Your task to perform on an android device: set the stopwatch Image 0: 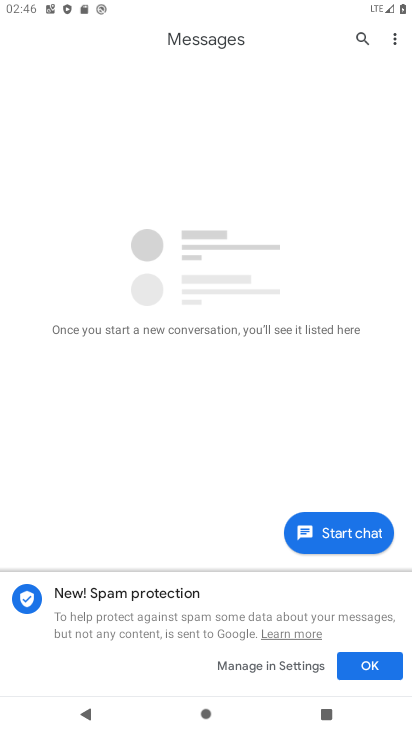
Step 0: press home button
Your task to perform on an android device: set the stopwatch Image 1: 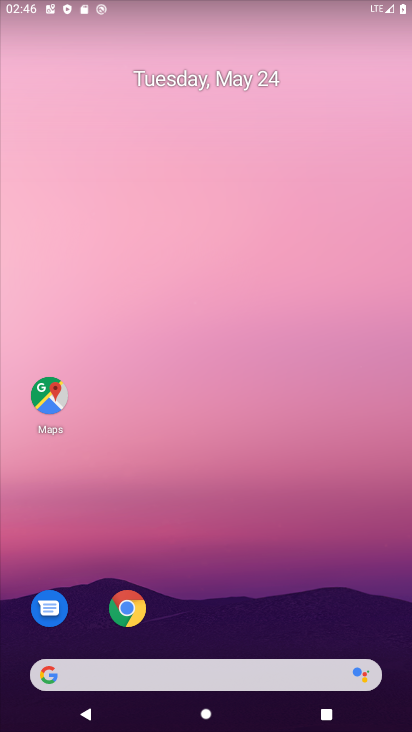
Step 1: drag from (270, 630) to (192, 240)
Your task to perform on an android device: set the stopwatch Image 2: 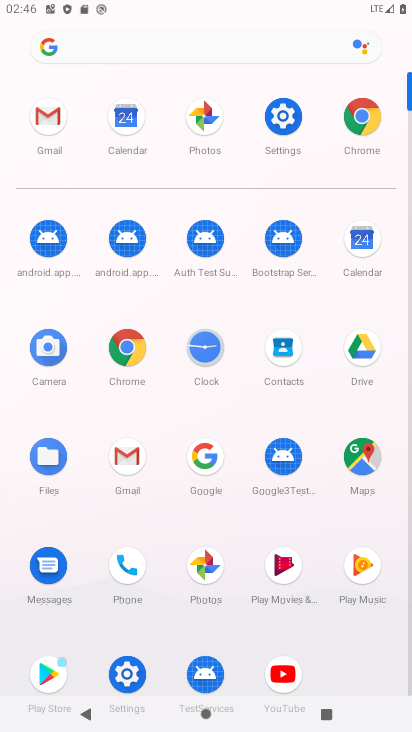
Step 2: click (207, 355)
Your task to perform on an android device: set the stopwatch Image 3: 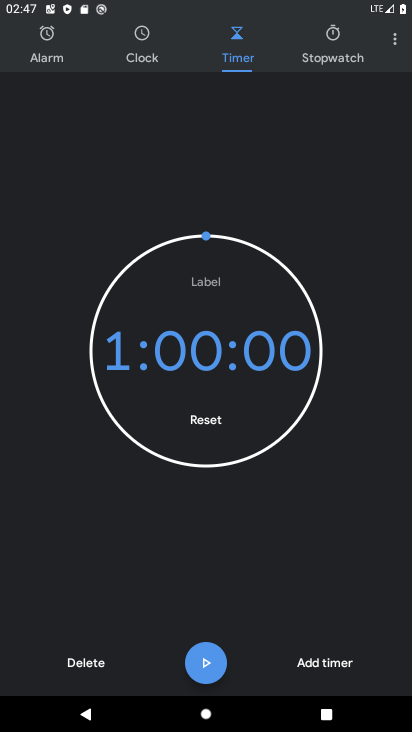
Step 3: click (336, 51)
Your task to perform on an android device: set the stopwatch Image 4: 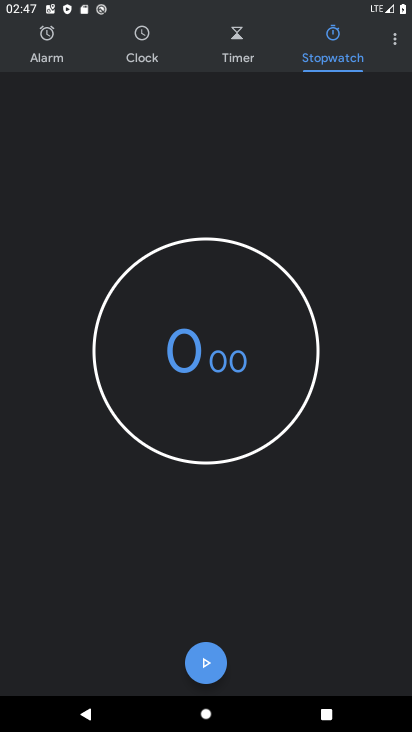
Step 4: click (217, 653)
Your task to perform on an android device: set the stopwatch Image 5: 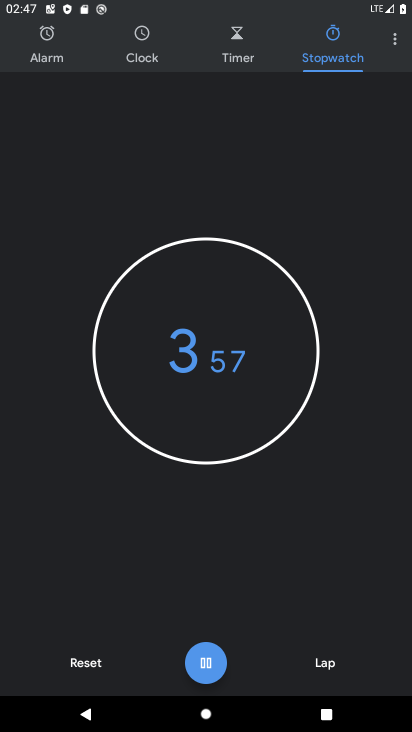
Step 5: task complete